Your task to perform on an android device: install app "ColorNote Notepad Notes" Image 0: 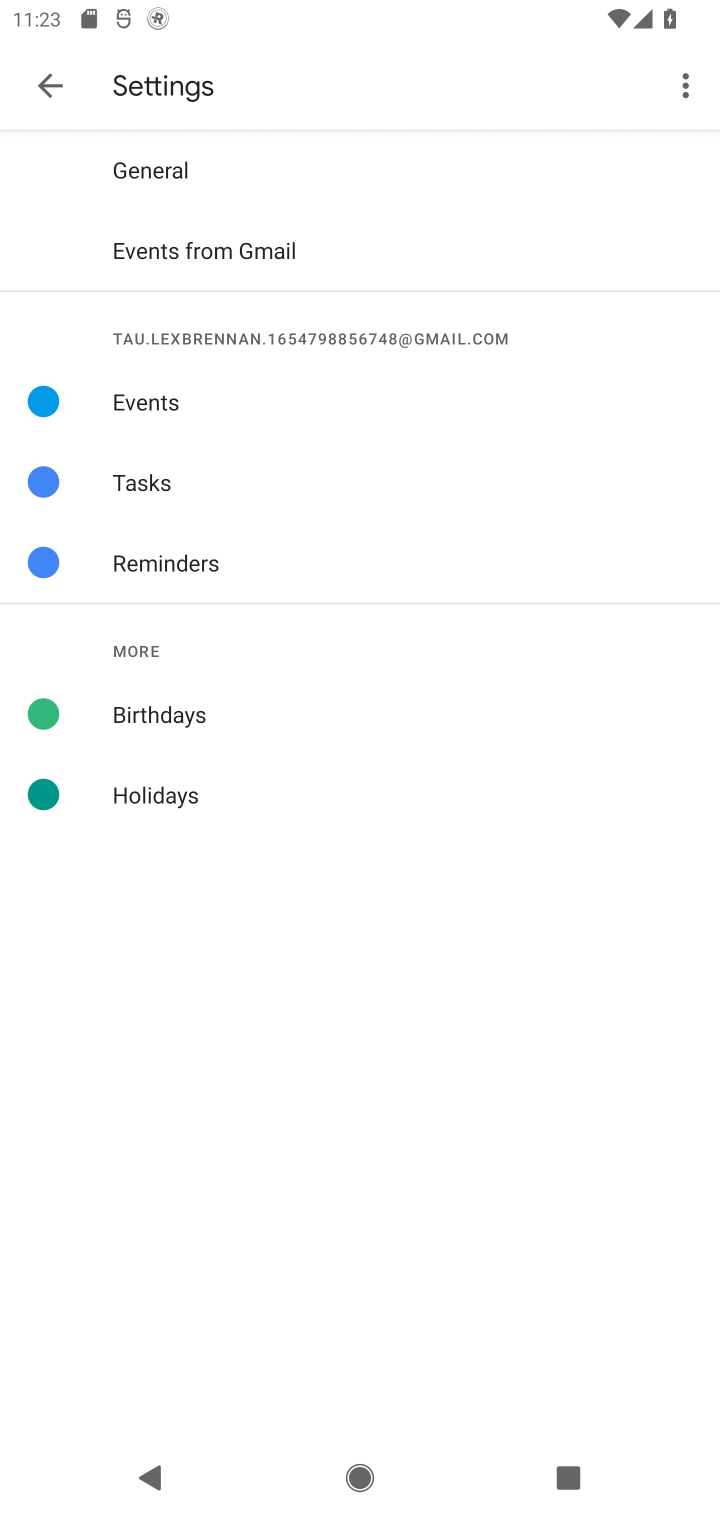
Step 0: press home button
Your task to perform on an android device: install app "ColorNote Notepad Notes" Image 1: 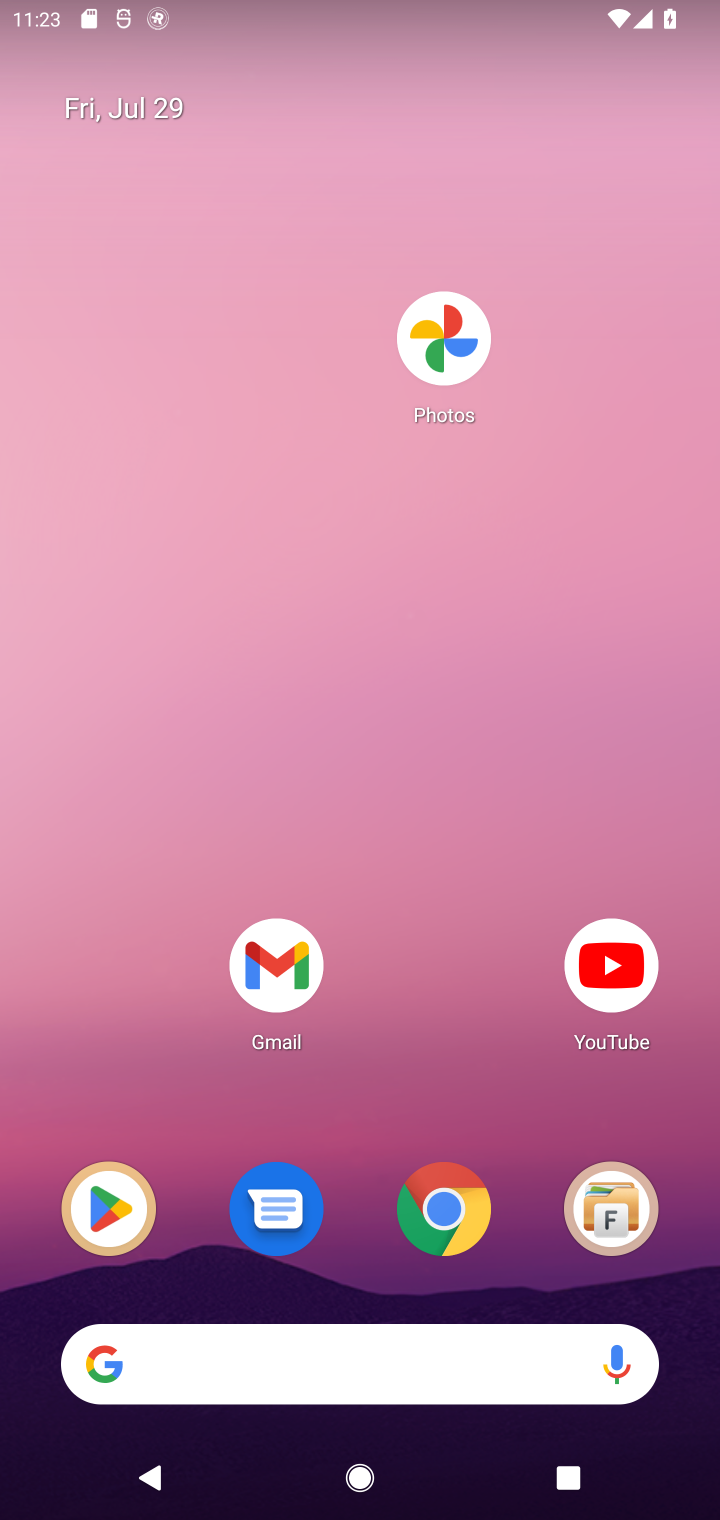
Step 1: drag from (450, 964) to (449, 99)
Your task to perform on an android device: install app "ColorNote Notepad Notes" Image 2: 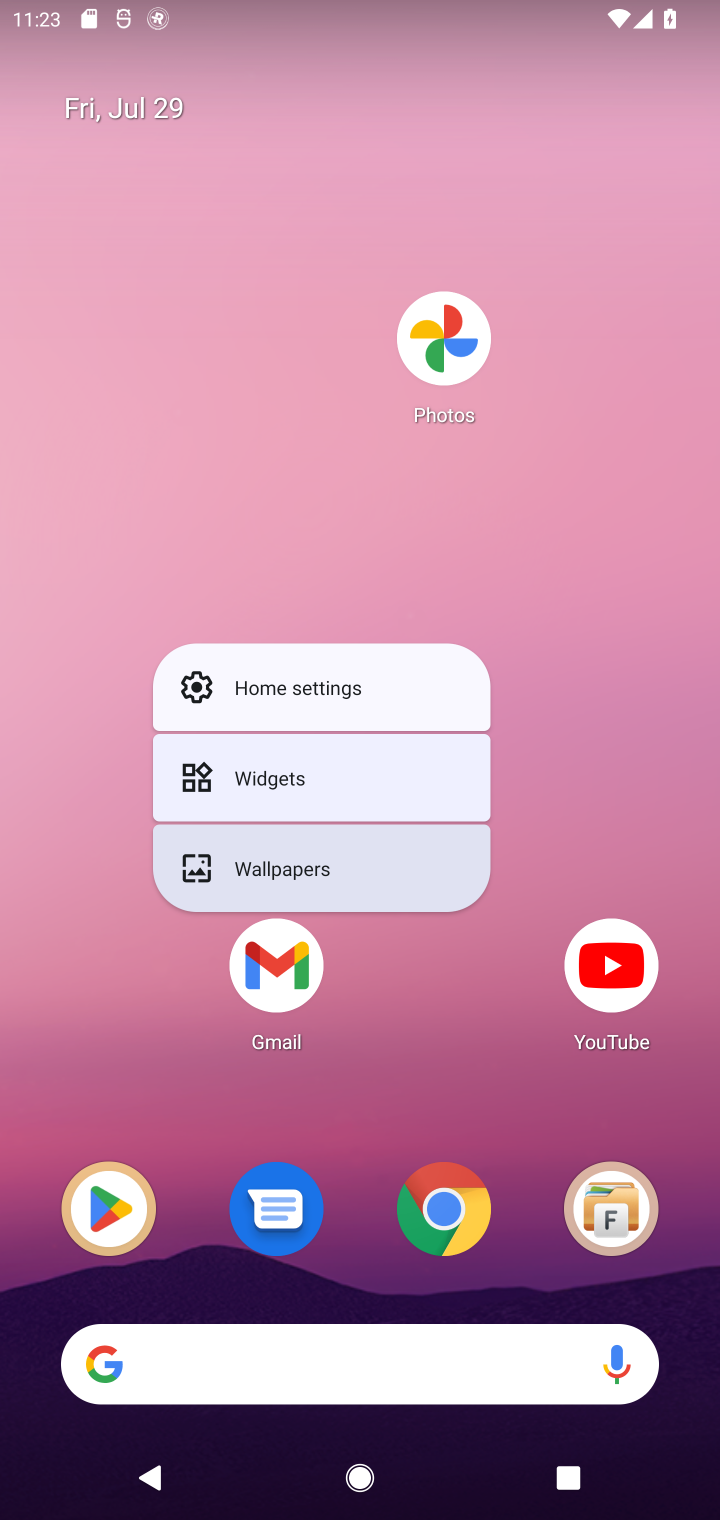
Step 2: click (578, 631)
Your task to perform on an android device: install app "ColorNote Notepad Notes" Image 3: 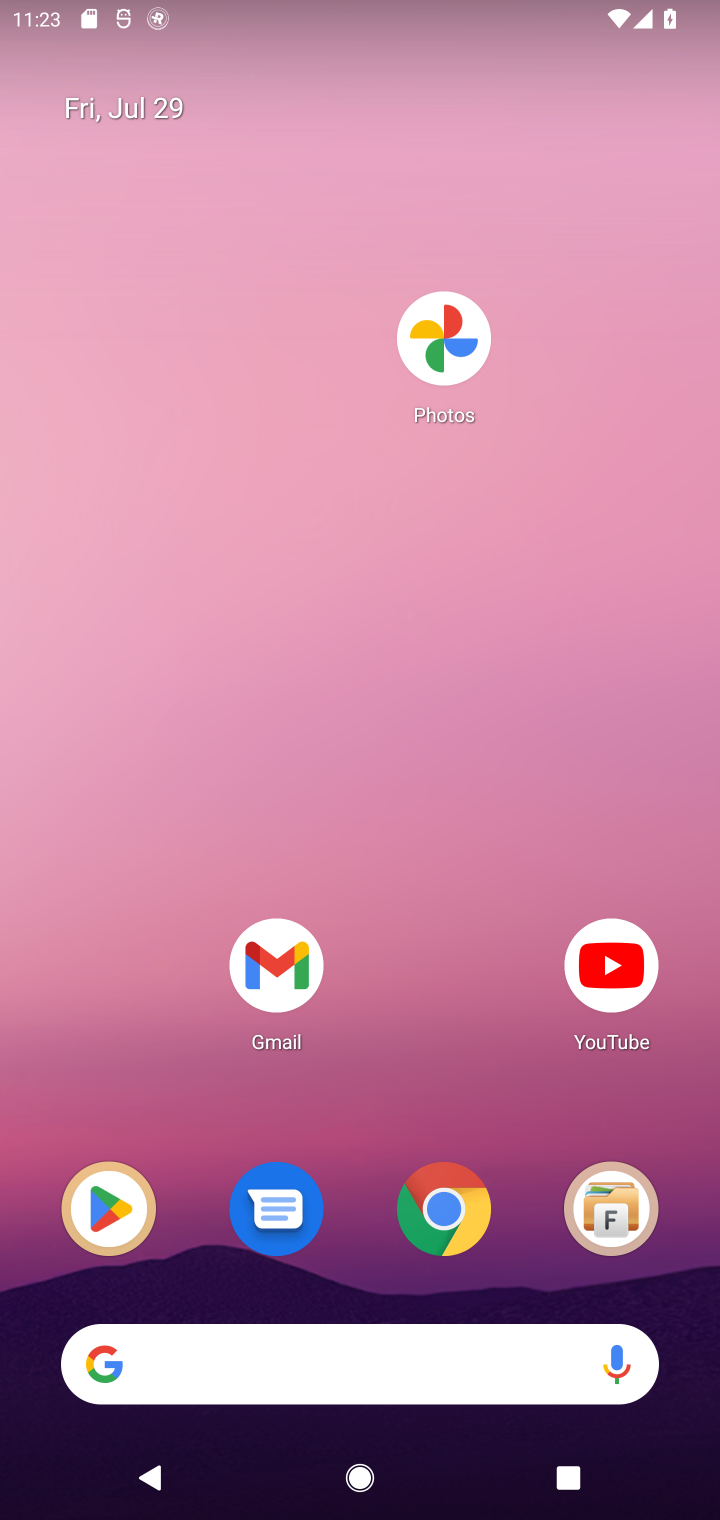
Step 3: drag from (490, 1089) to (504, 113)
Your task to perform on an android device: install app "ColorNote Notepad Notes" Image 4: 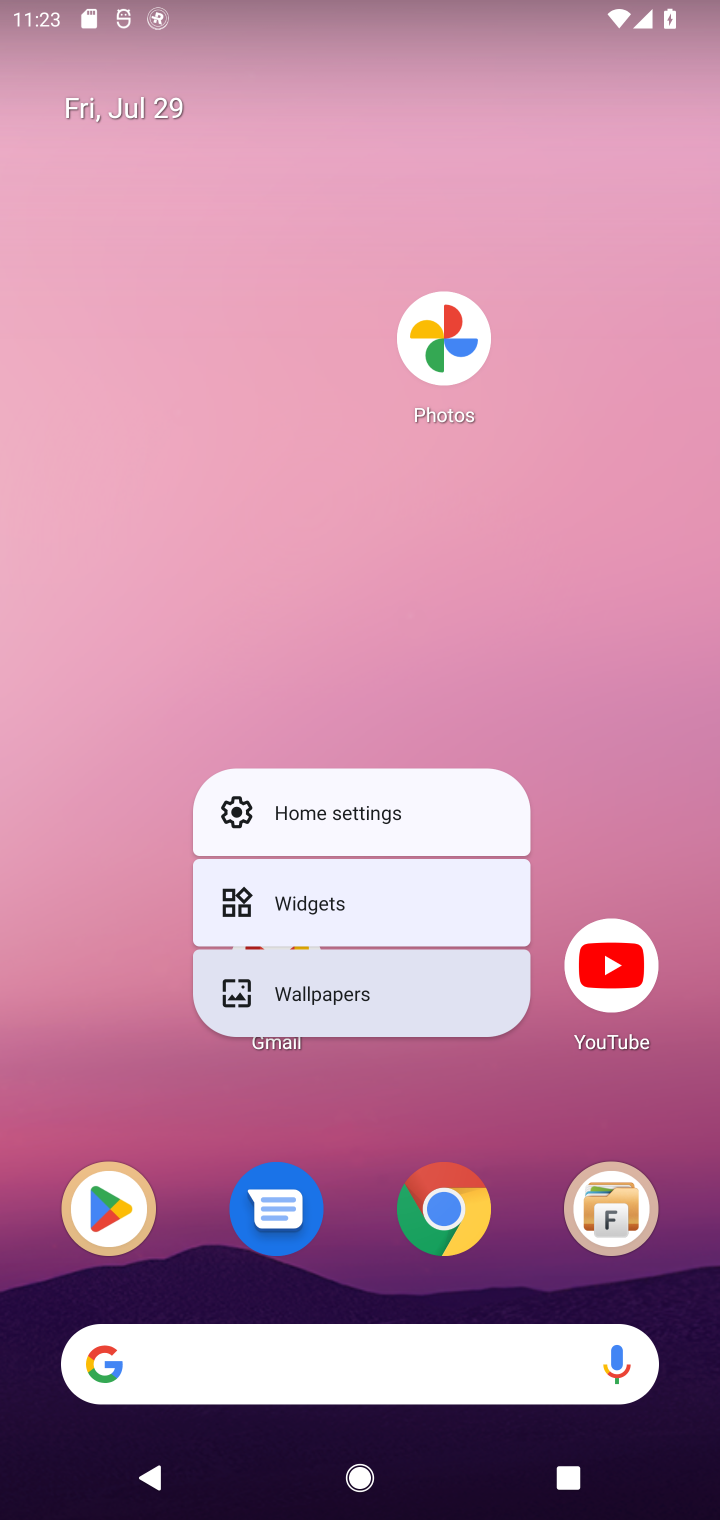
Step 4: click (662, 713)
Your task to perform on an android device: install app "ColorNote Notepad Notes" Image 5: 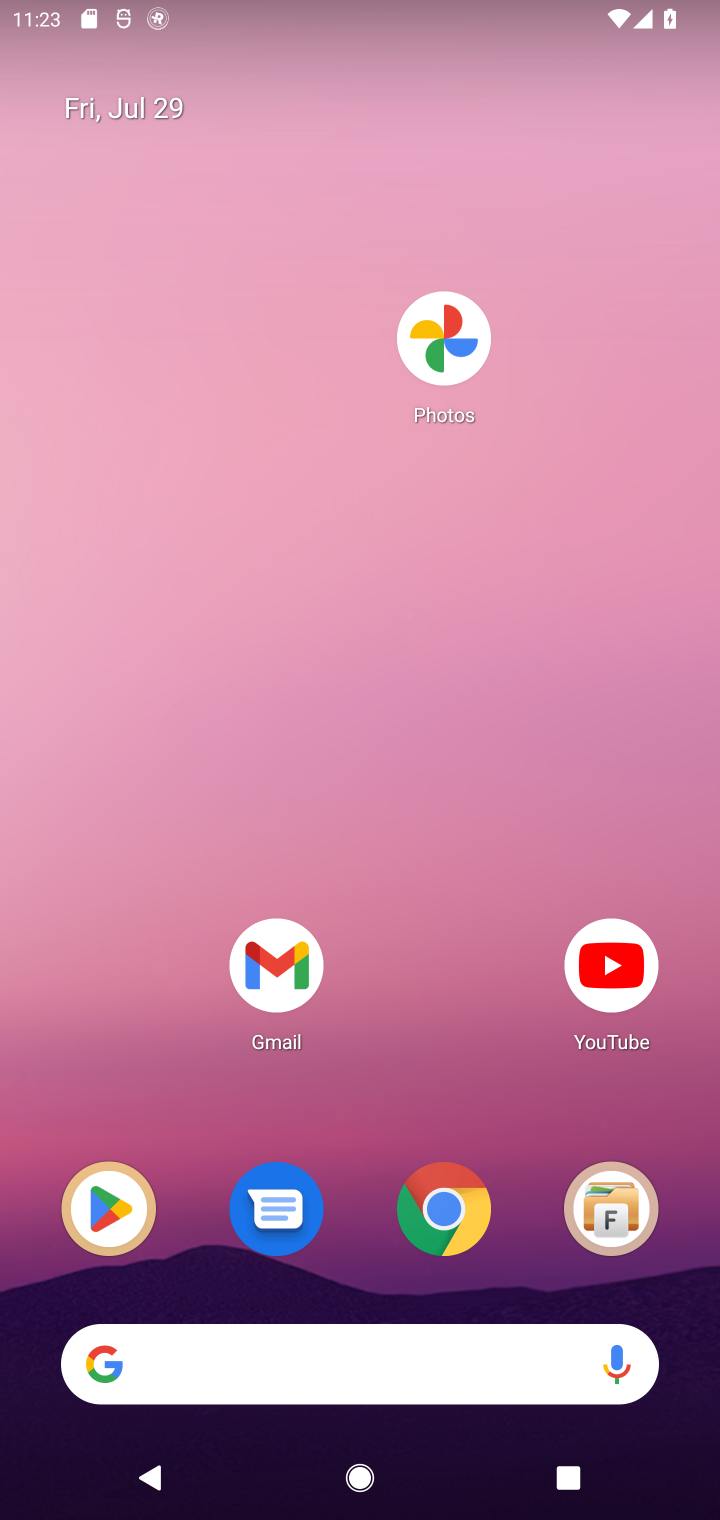
Step 5: drag from (687, 1141) to (623, 158)
Your task to perform on an android device: install app "ColorNote Notepad Notes" Image 6: 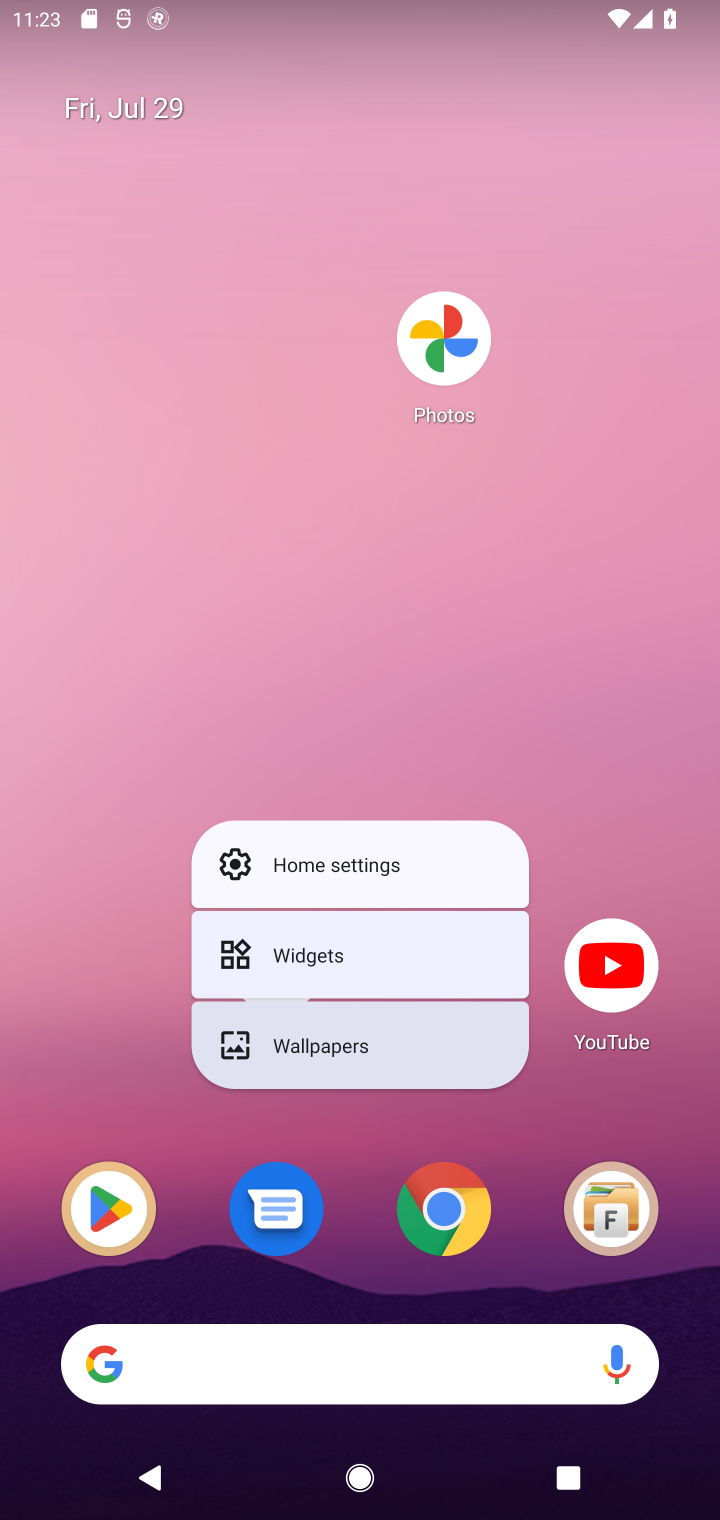
Step 6: click (600, 703)
Your task to perform on an android device: install app "ColorNote Notepad Notes" Image 7: 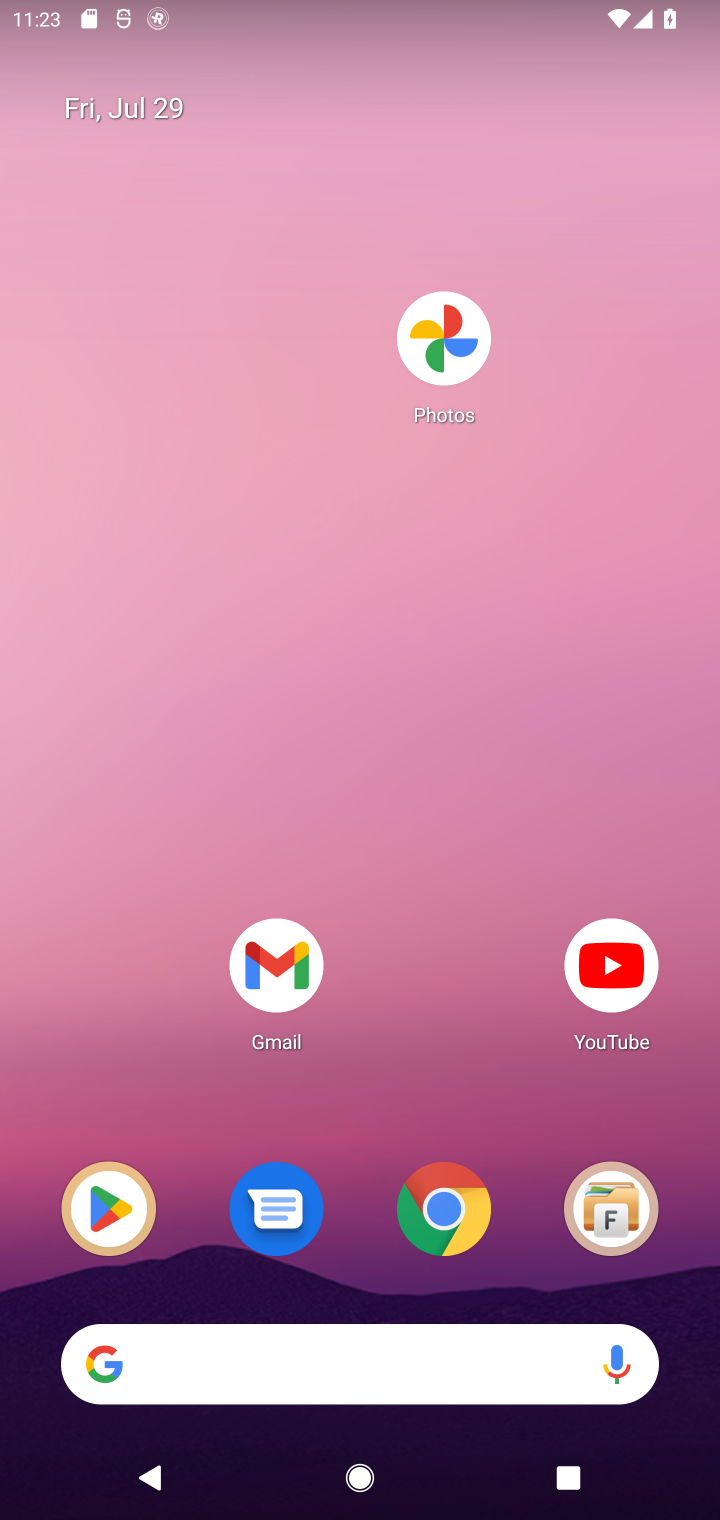
Step 7: drag from (363, 1143) to (441, 172)
Your task to perform on an android device: install app "ColorNote Notepad Notes" Image 8: 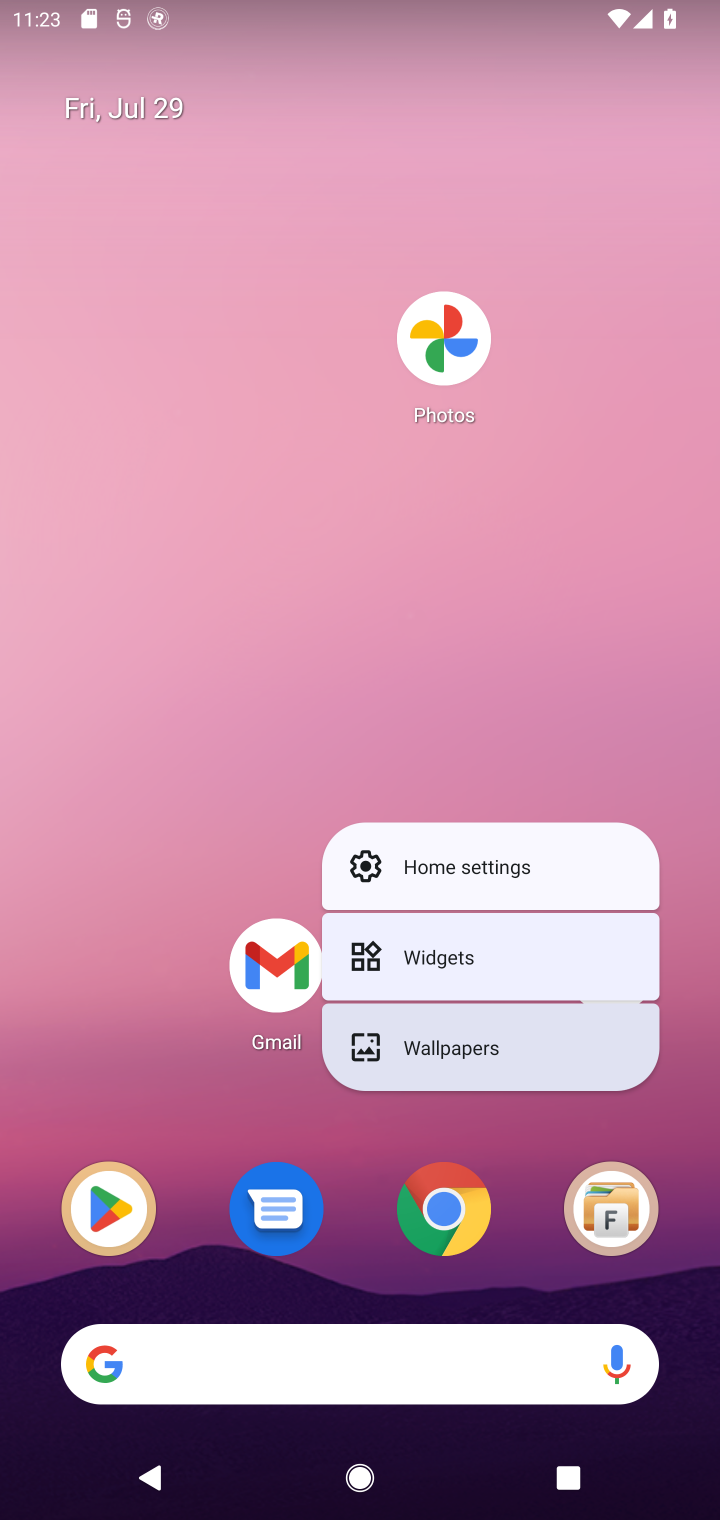
Step 8: click (679, 715)
Your task to perform on an android device: install app "ColorNote Notepad Notes" Image 9: 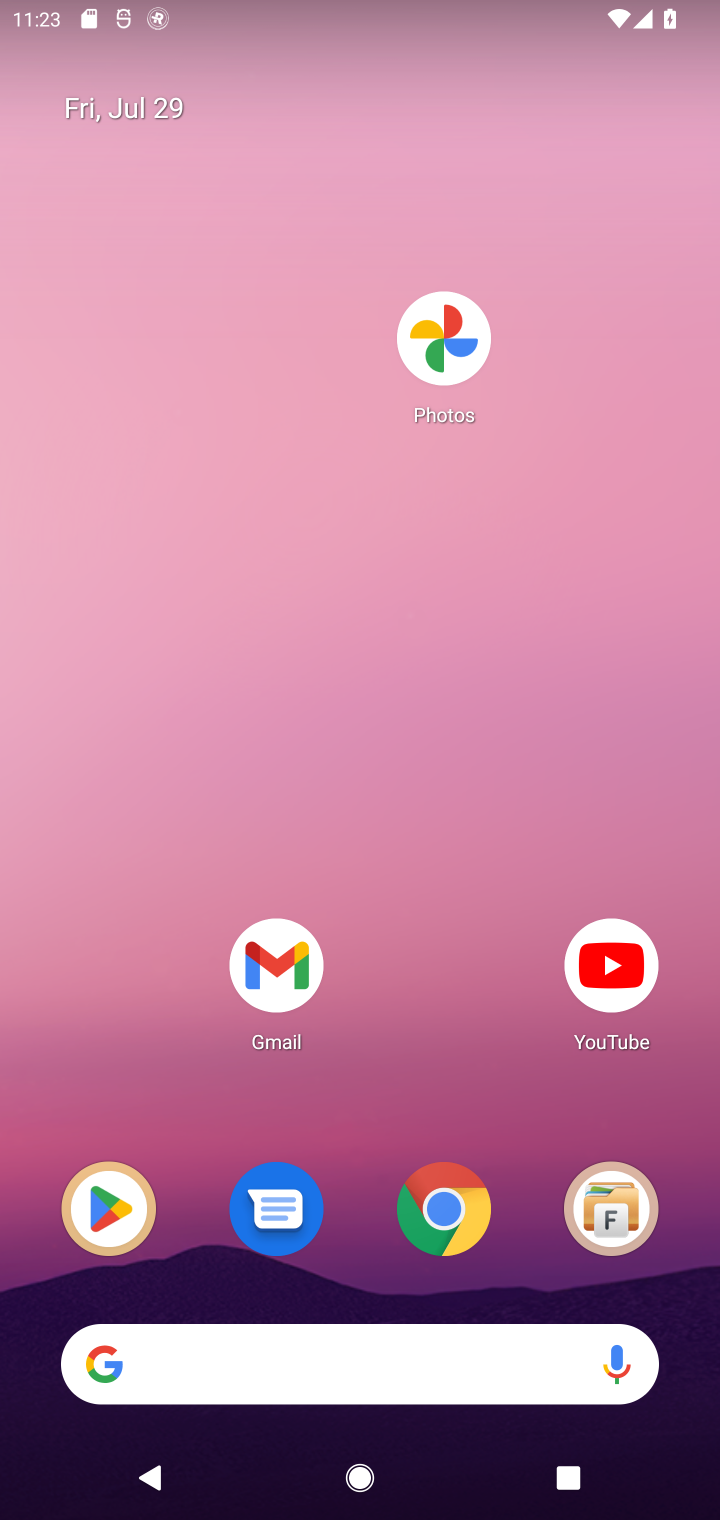
Step 9: drag from (523, 1146) to (475, 106)
Your task to perform on an android device: install app "ColorNote Notepad Notes" Image 10: 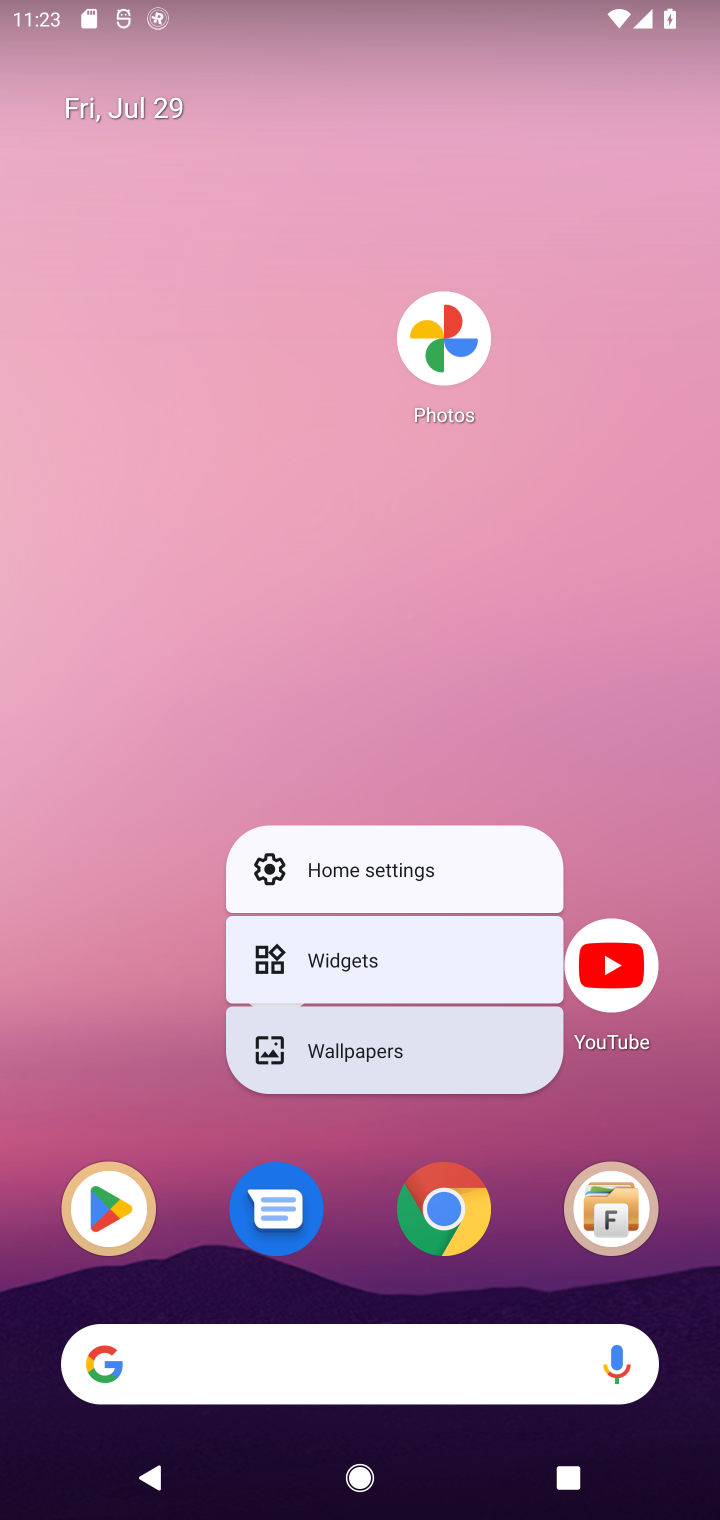
Step 10: click (585, 296)
Your task to perform on an android device: install app "ColorNote Notepad Notes" Image 11: 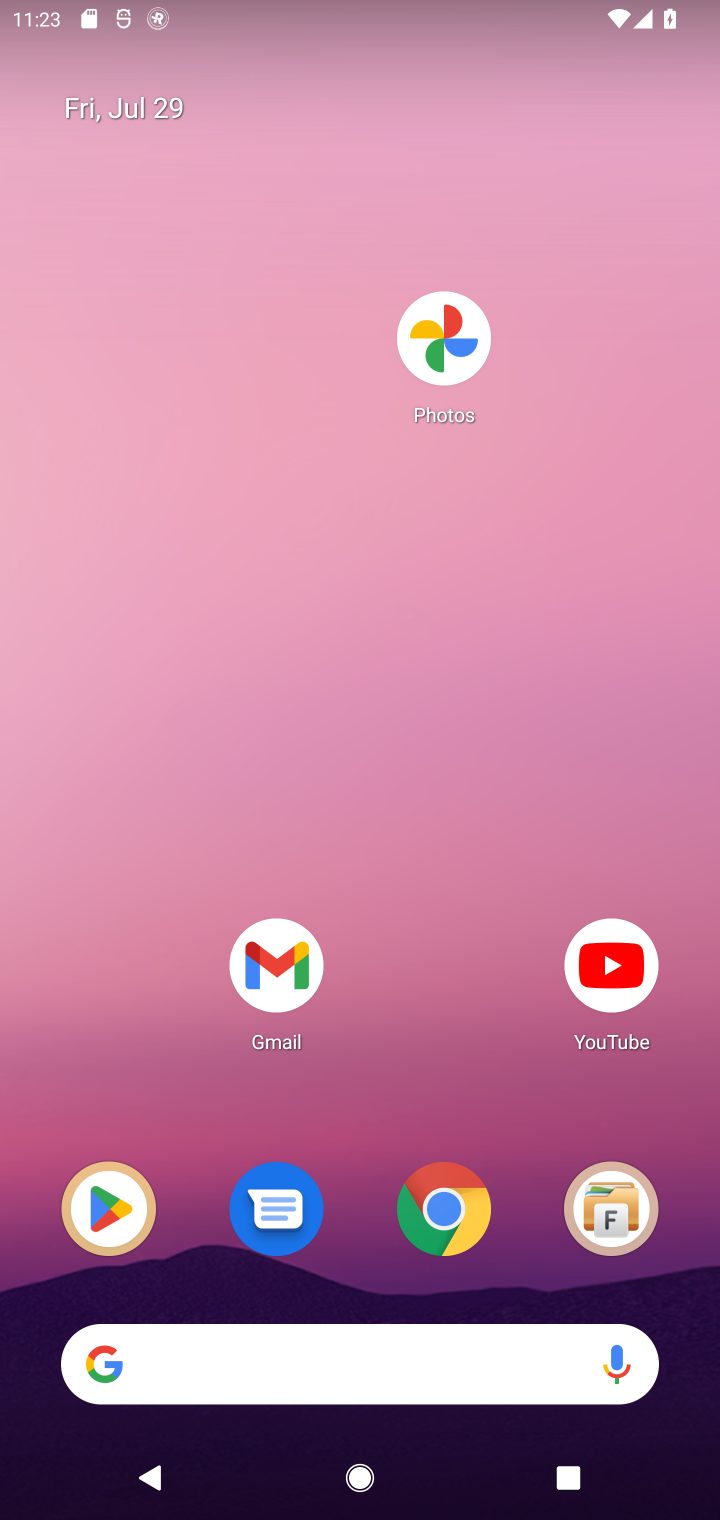
Step 11: click (472, 585)
Your task to perform on an android device: install app "ColorNote Notepad Notes" Image 12: 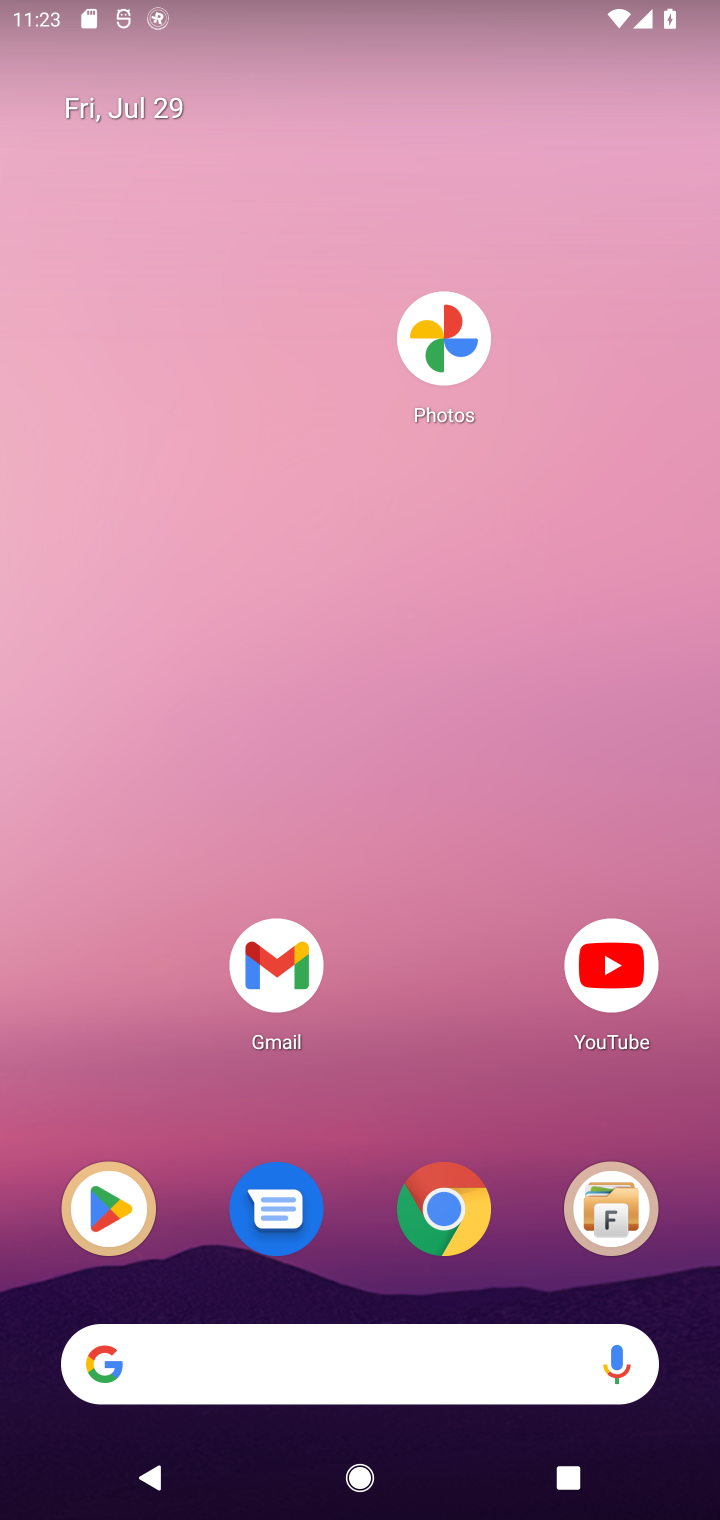
Step 12: press back button
Your task to perform on an android device: install app "ColorNote Notepad Notes" Image 13: 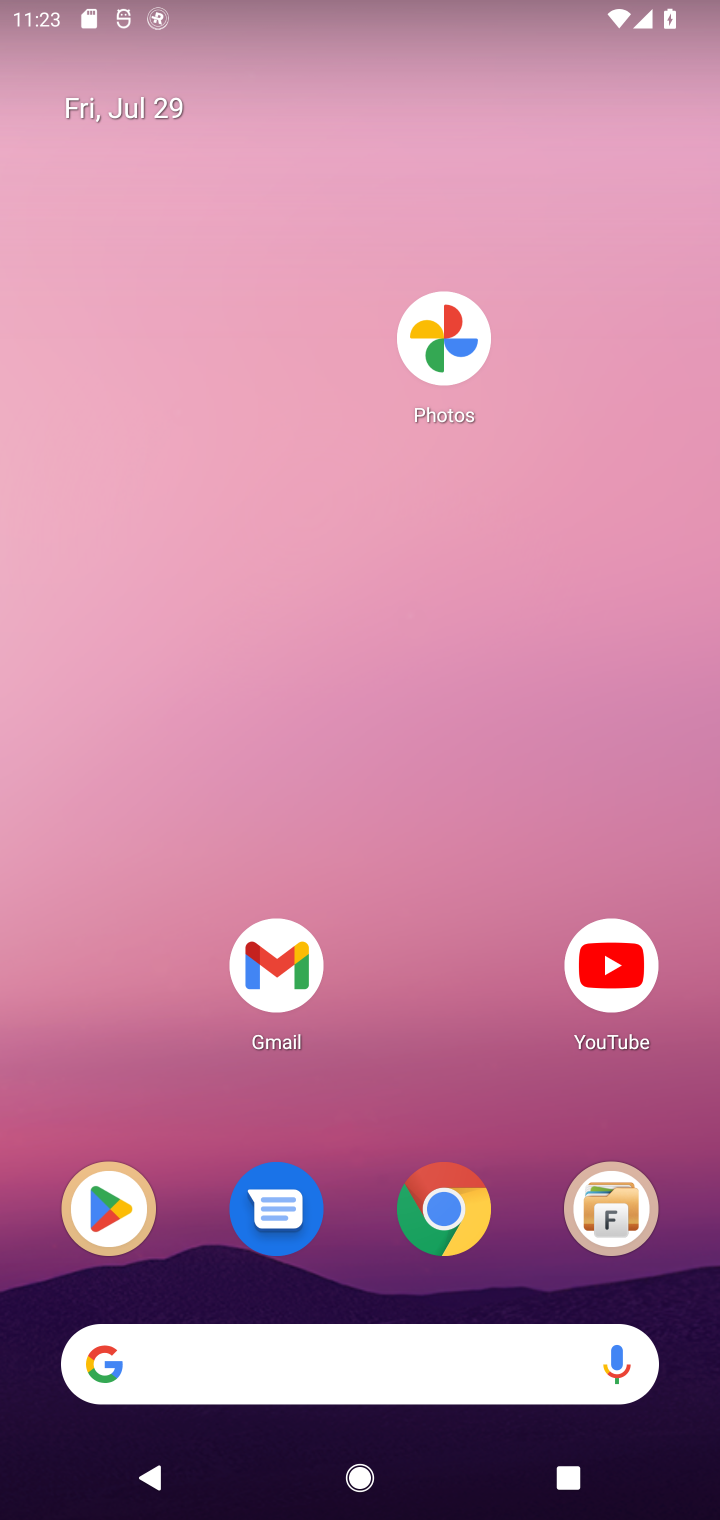
Step 13: drag from (479, 839) to (470, 126)
Your task to perform on an android device: install app "ColorNote Notepad Notes" Image 14: 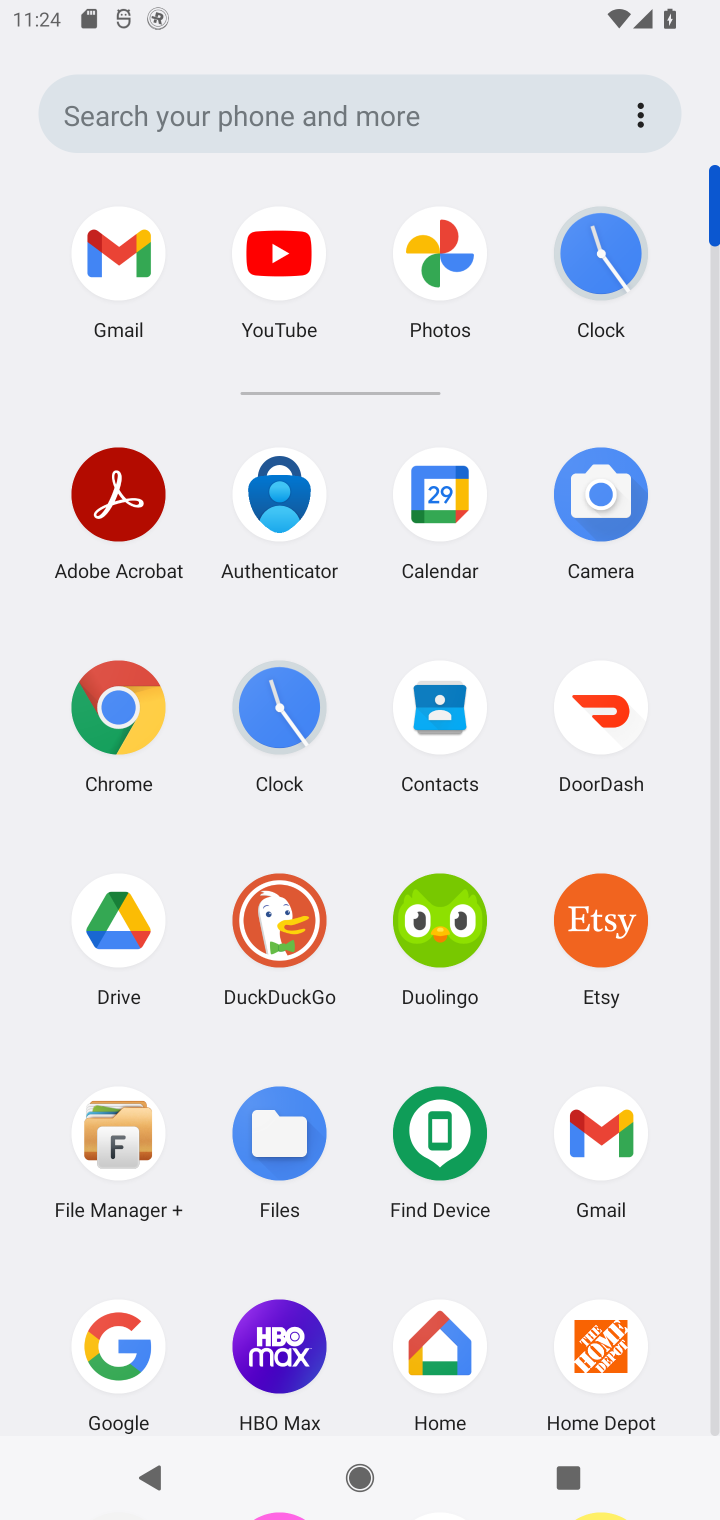
Step 14: drag from (507, 983) to (500, 480)
Your task to perform on an android device: install app "ColorNote Notepad Notes" Image 15: 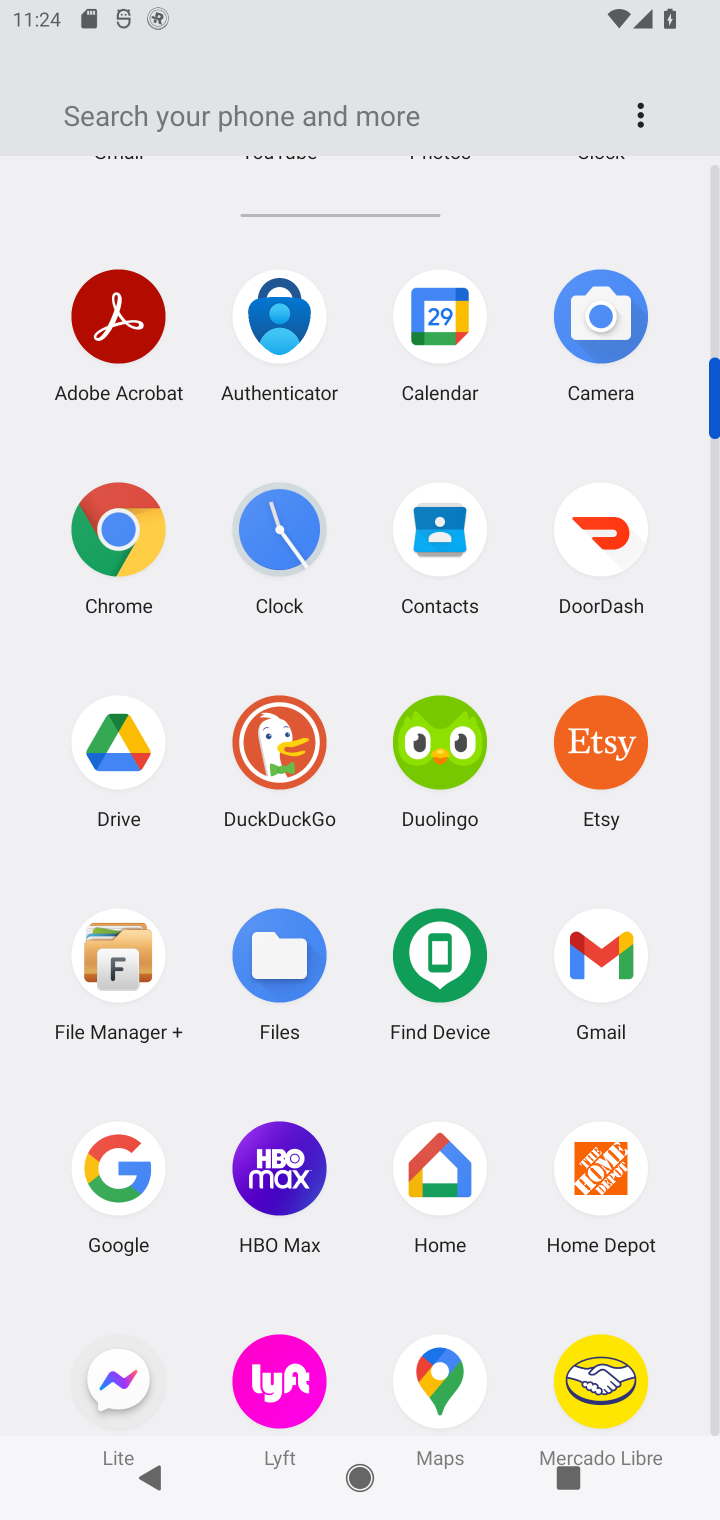
Step 15: drag from (392, 970) to (407, 487)
Your task to perform on an android device: install app "ColorNote Notepad Notes" Image 16: 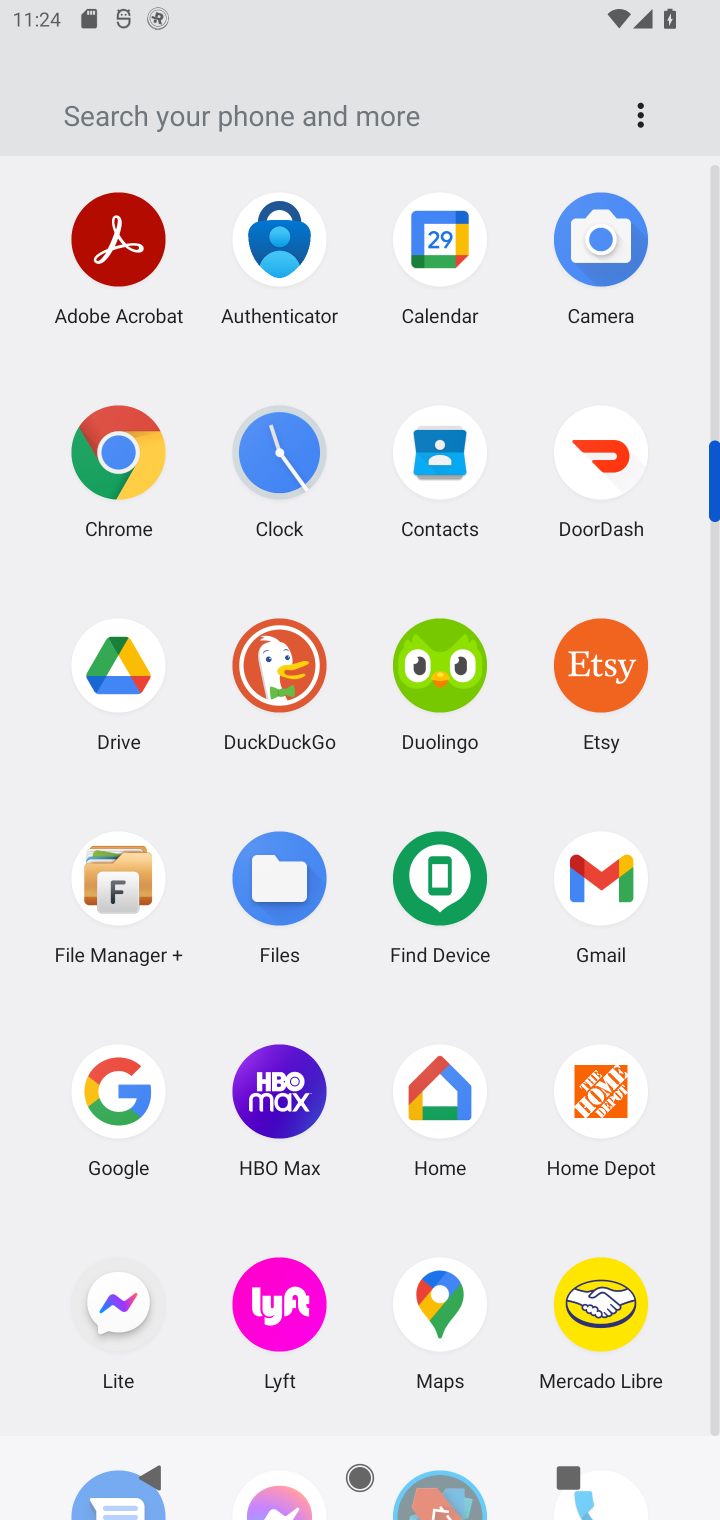
Step 16: drag from (529, 1122) to (582, 437)
Your task to perform on an android device: install app "ColorNote Notepad Notes" Image 17: 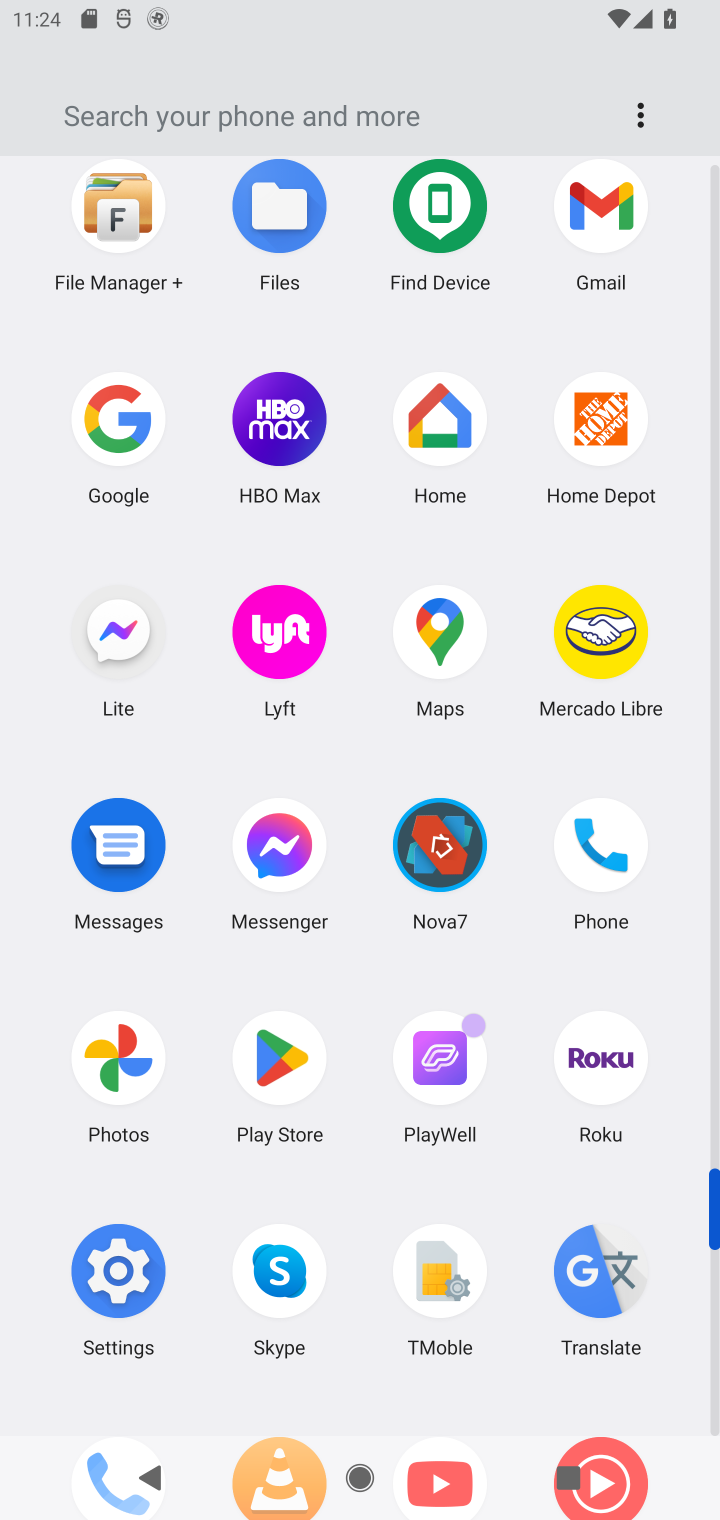
Step 17: click (288, 1059)
Your task to perform on an android device: install app "ColorNote Notepad Notes" Image 18: 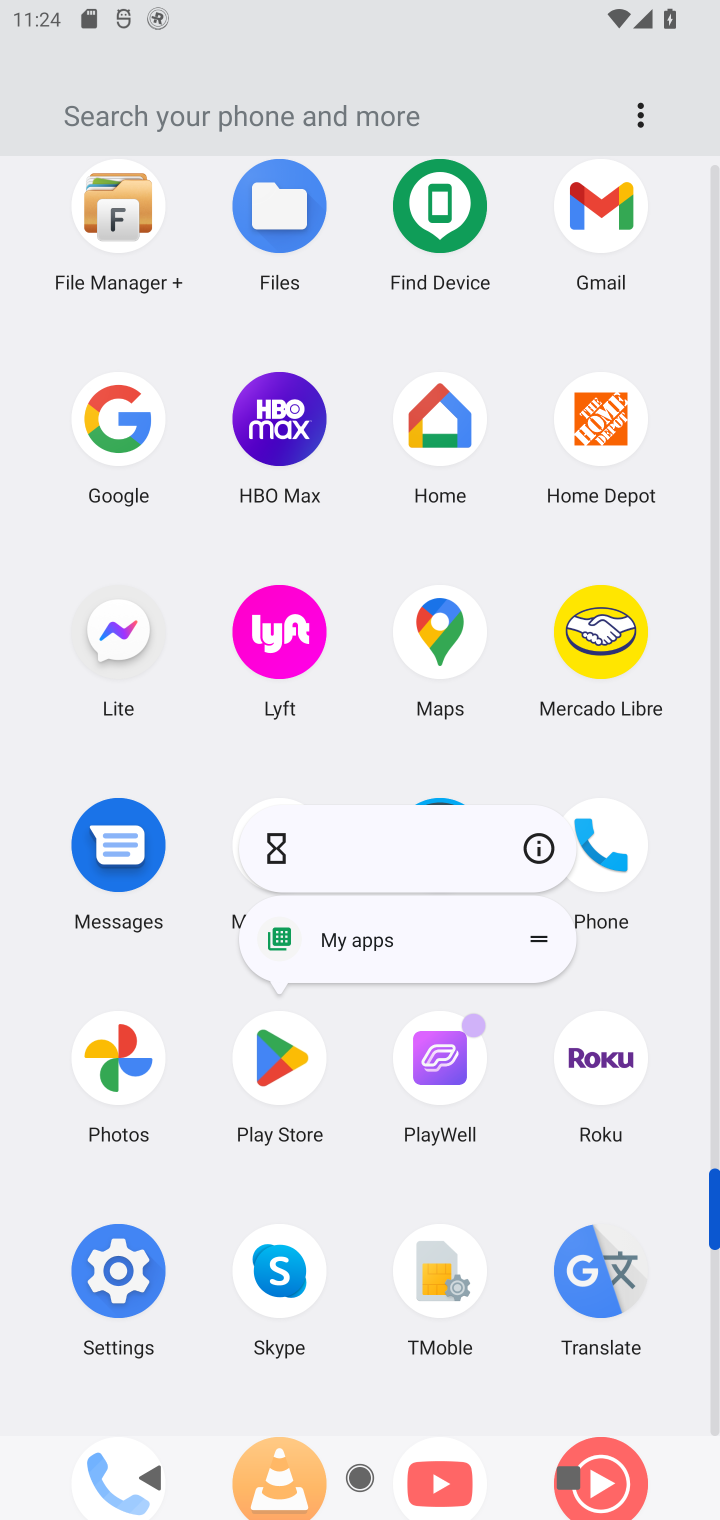
Step 18: click (288, 1059)
Your task to perform on an android device: install app "ColorNote Notepad Notes" Image 19: 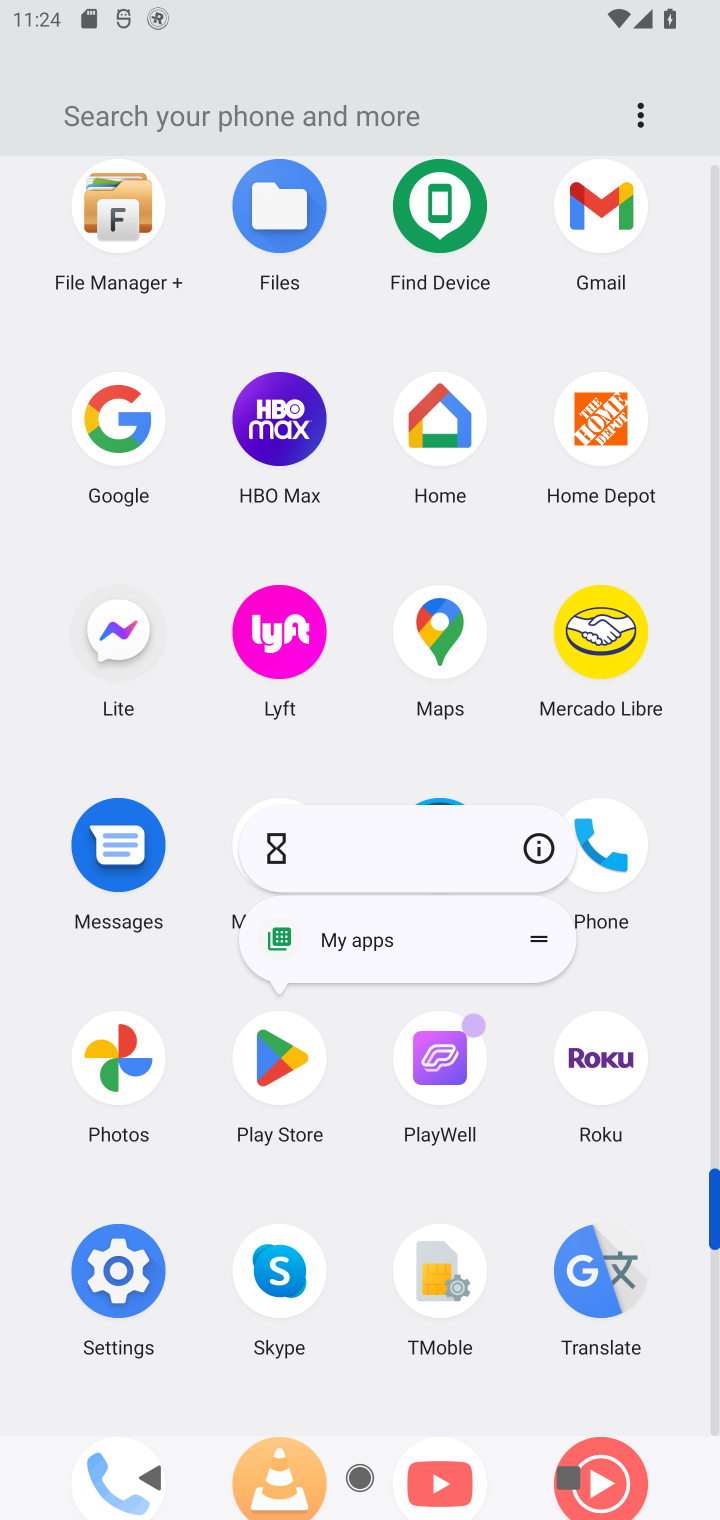
Step 19: click (271, 1041)
Your task to perform on an android device: install app "ColorNote Notepad Notes" Image 20: 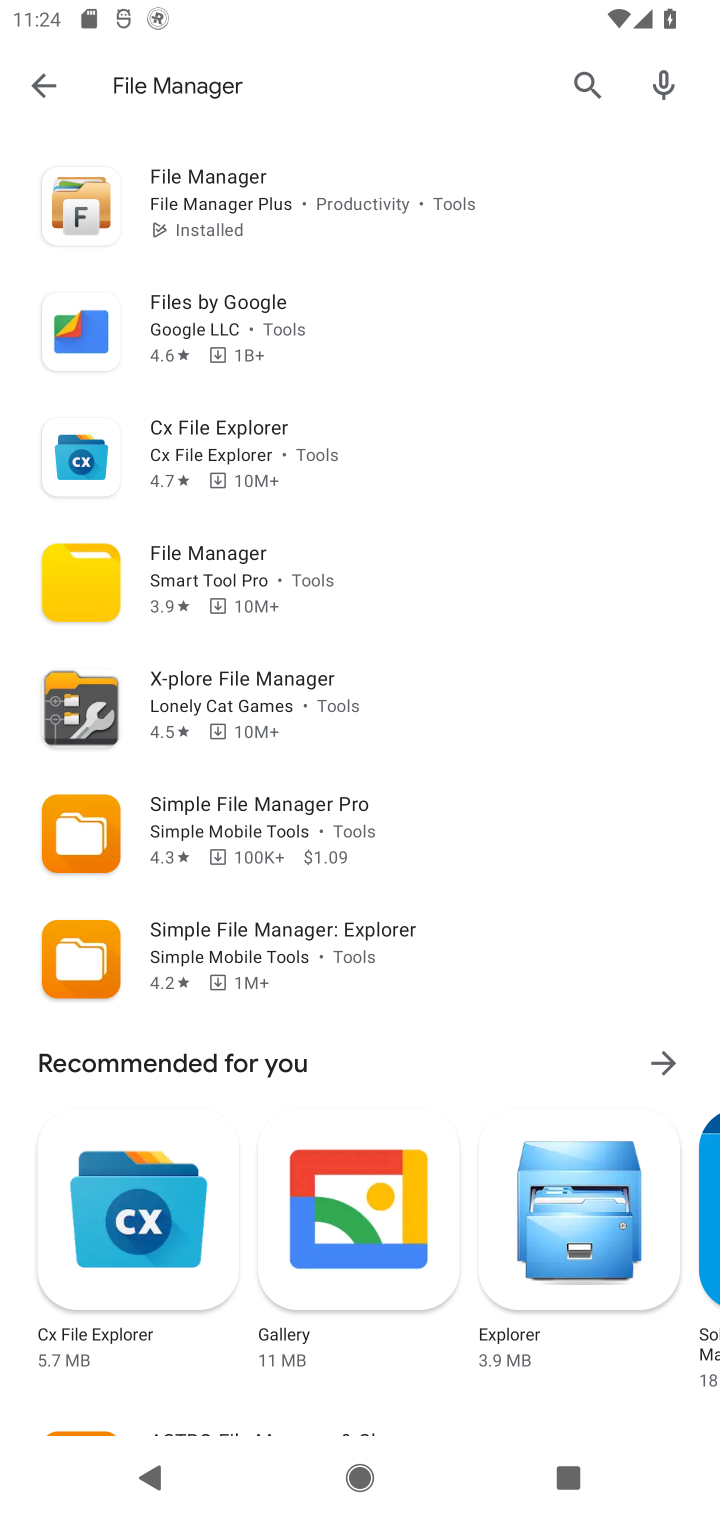
Step 20: press back button
Your task to perform on an android device: install app "ColorNote Notepad Notes" Image 21: 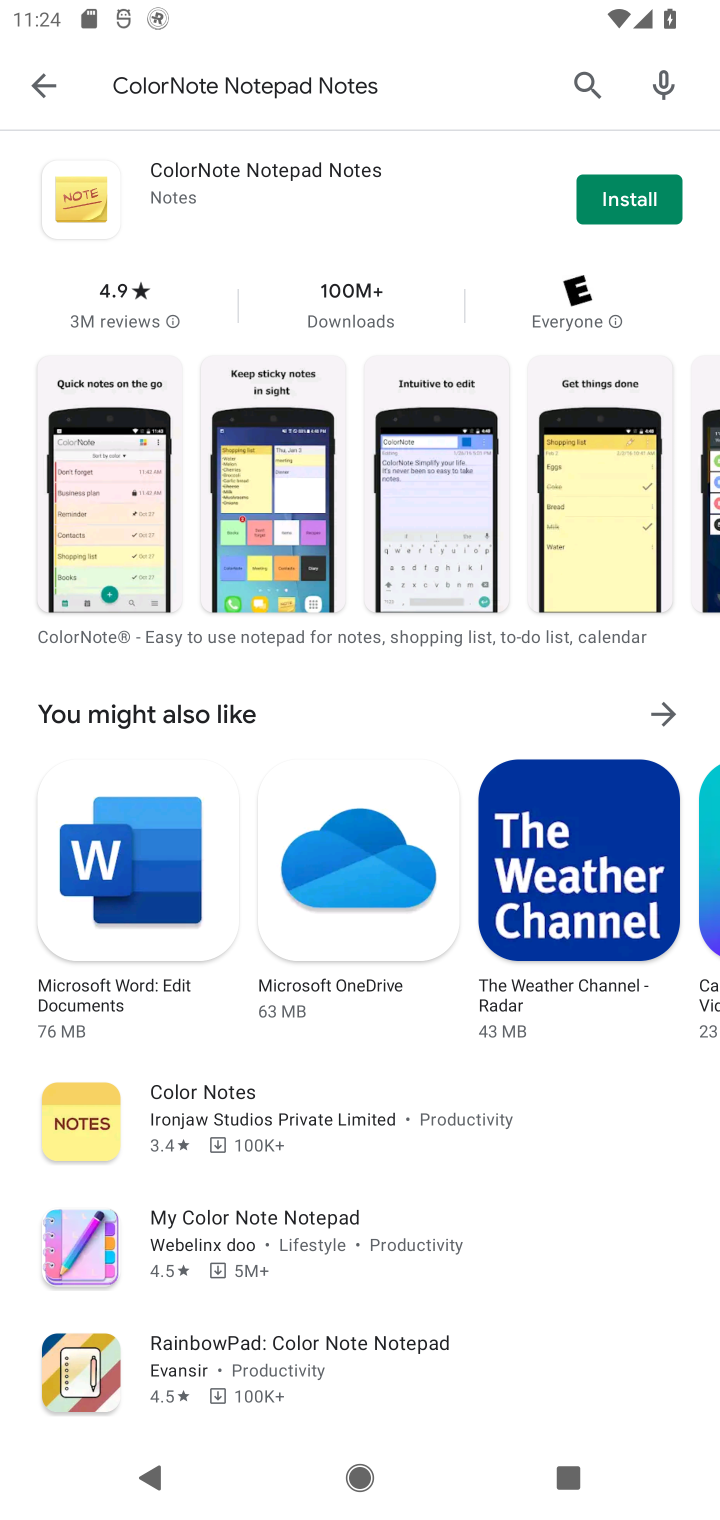
Step 21: click (352, 80)
Your task to perform on an android device: install app "ColorNote Notepad Notes" Image 22: 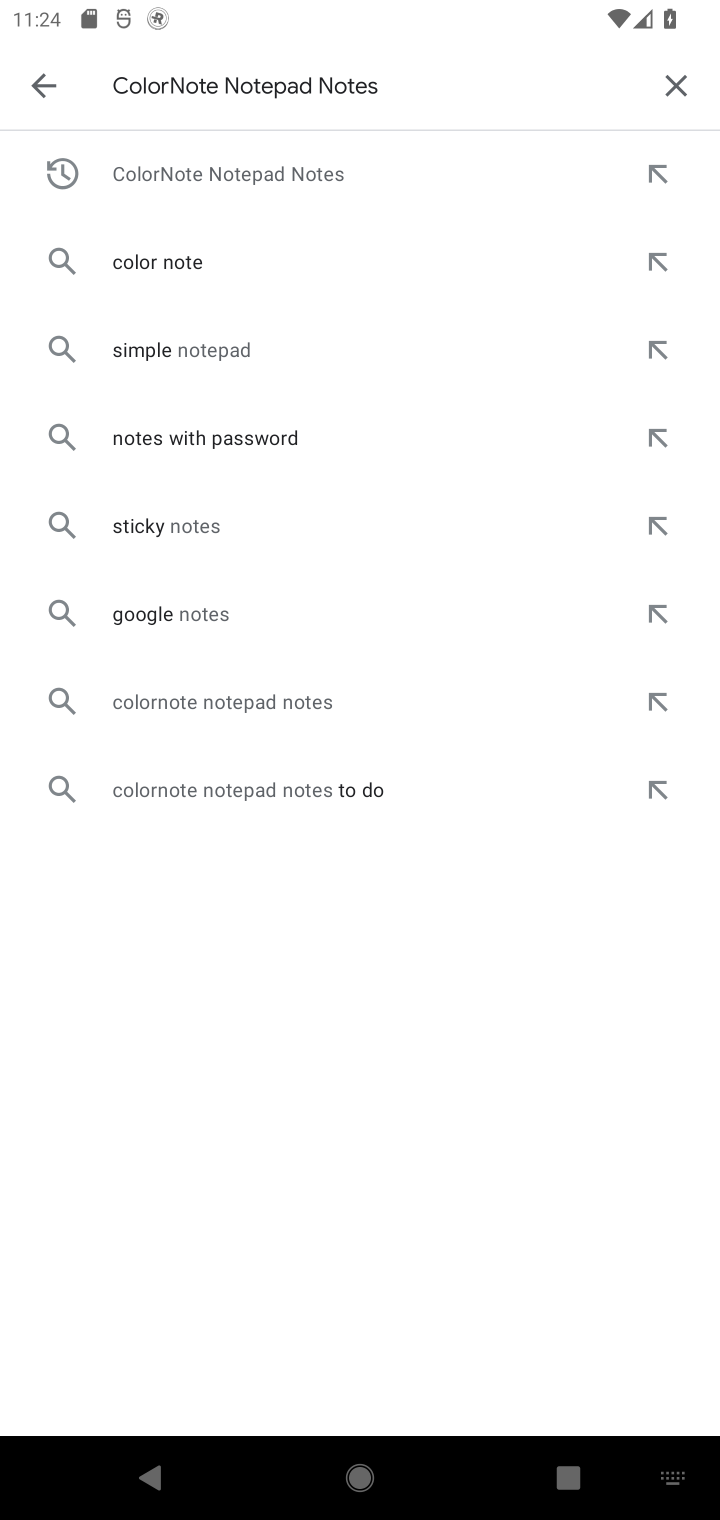
Step 22: click (680, 72)
Your task to perform on an android device: install app "ColorNote Notepad Notes" Image 23: 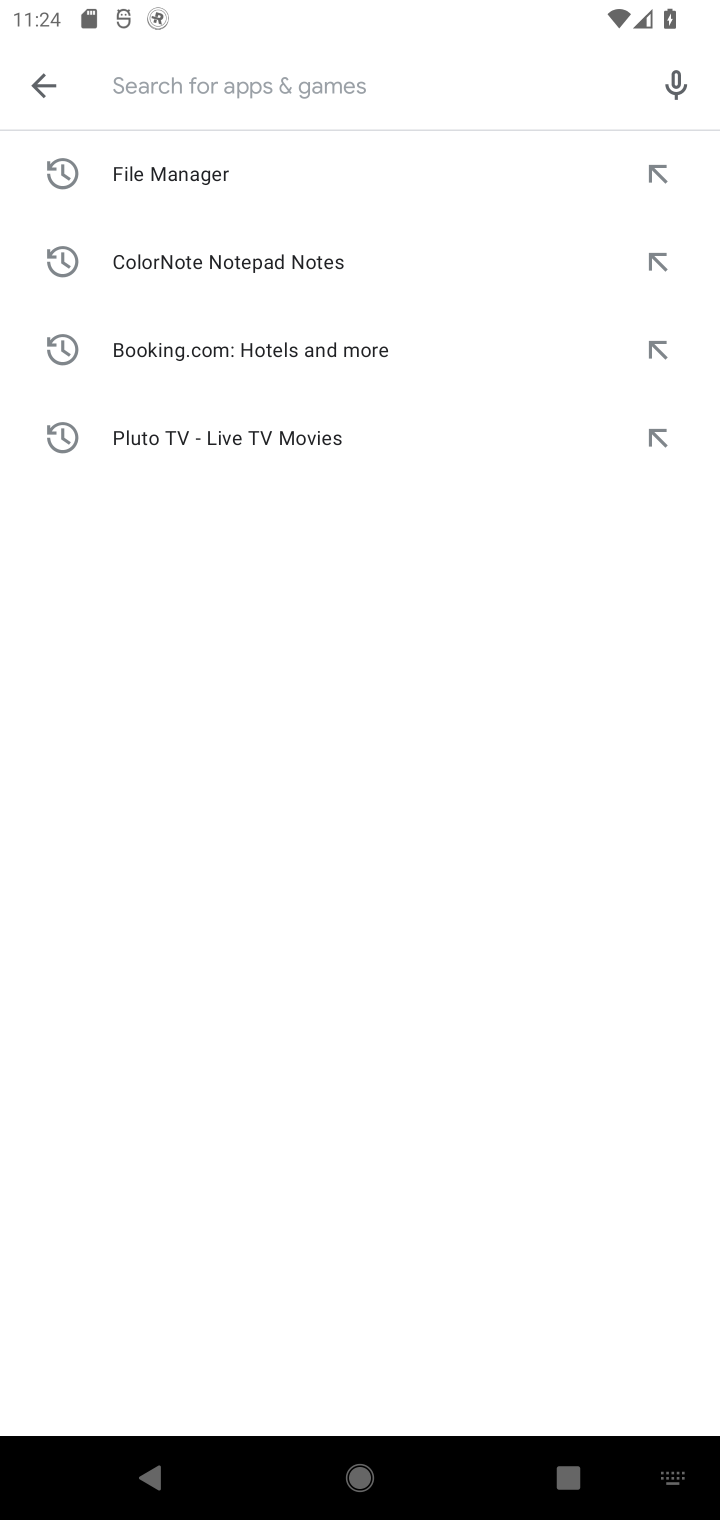
Step 23: click (351, 250)
Your task to perform on an android device: install app "ColorNote Notepad Notes" Image 24: 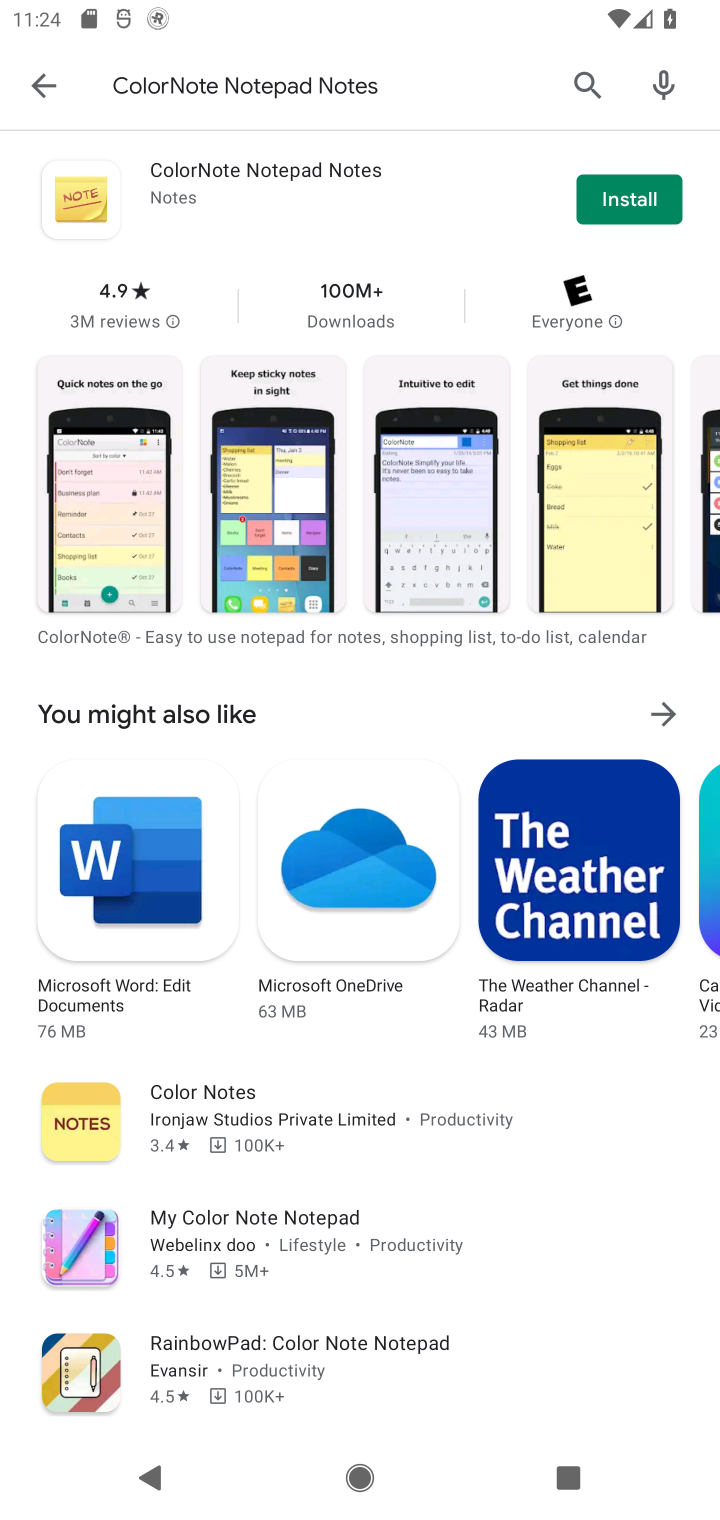
Step 24: click (602, 201)
Your task to perform on an android device: install app "ColorNote Notepad Notes" Image 25: 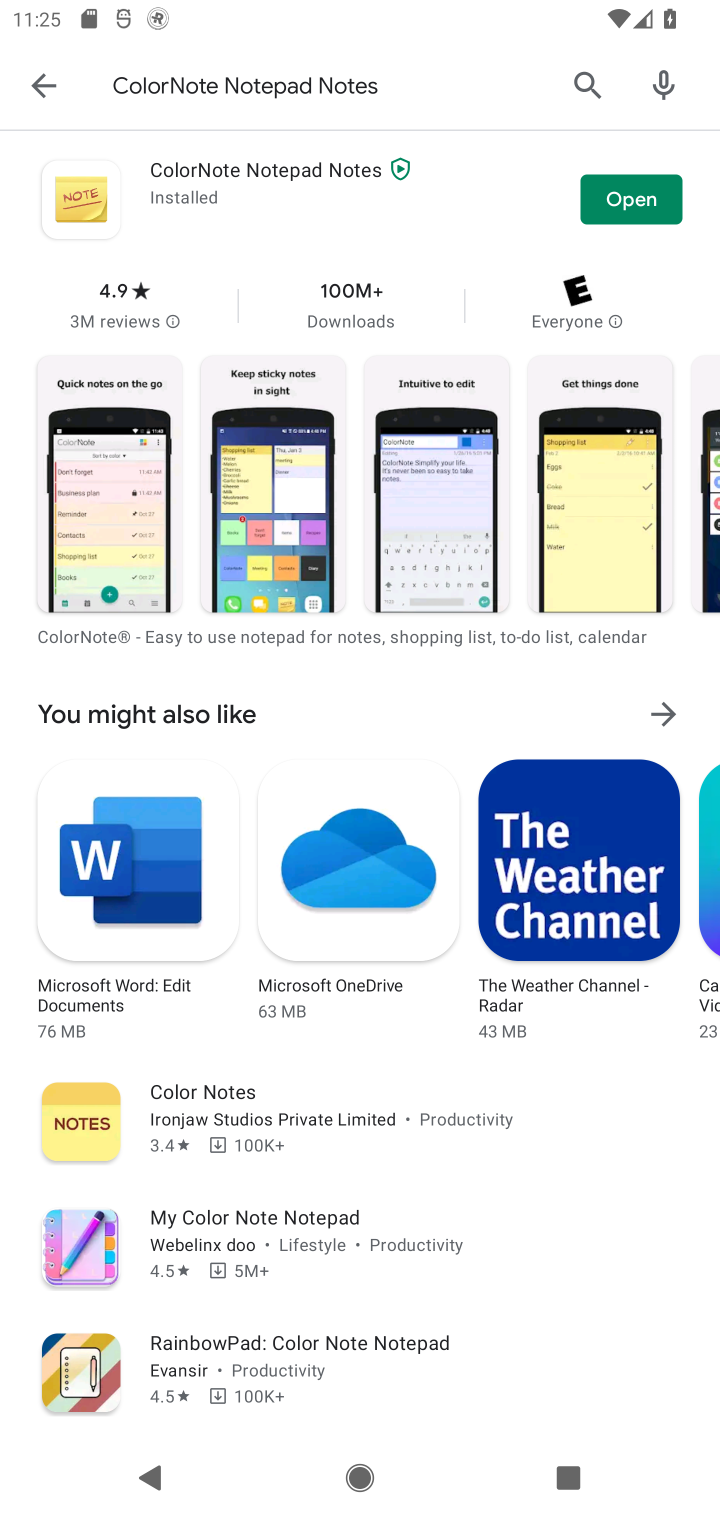
Step 25: task complete